Your task to perform on an android device: Go to internet settings Image 0: 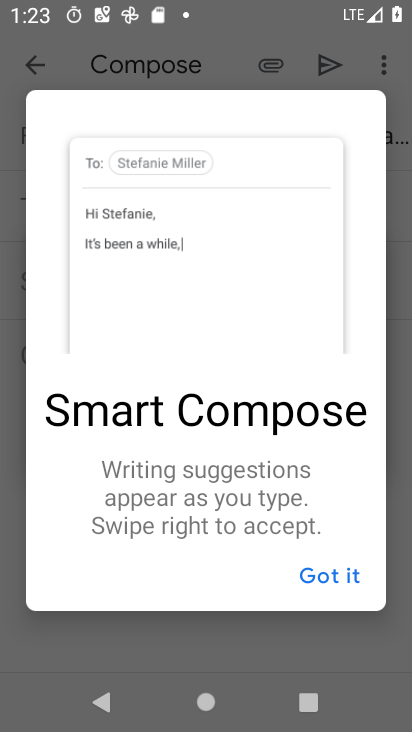
Step 0: press home button
Your task to perform on an android device: Go to internet settings Image 1: 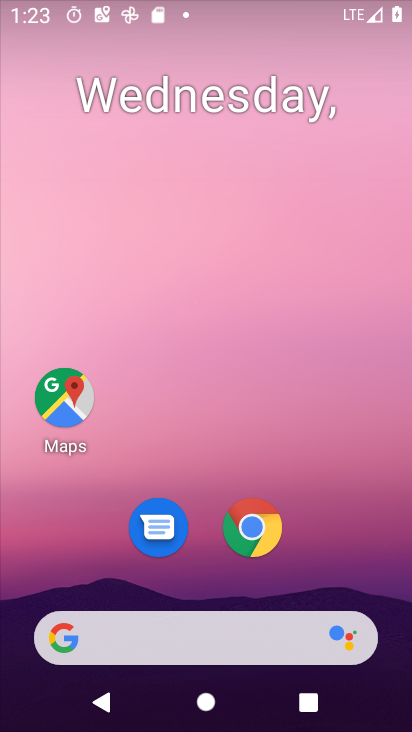
Step 1: drag from (342, 605) to (363, 68)
Your task to perform on an android device: Go to internet settings Image 2: 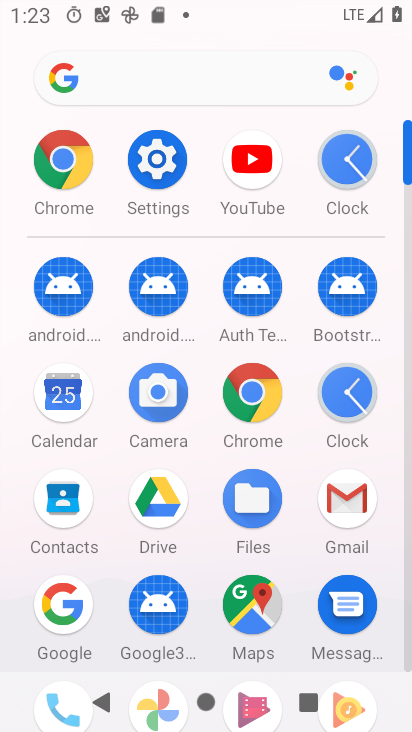
Step 2: click (154, 145)
Your task to perform on an android device: Go to internet settings Image 3: 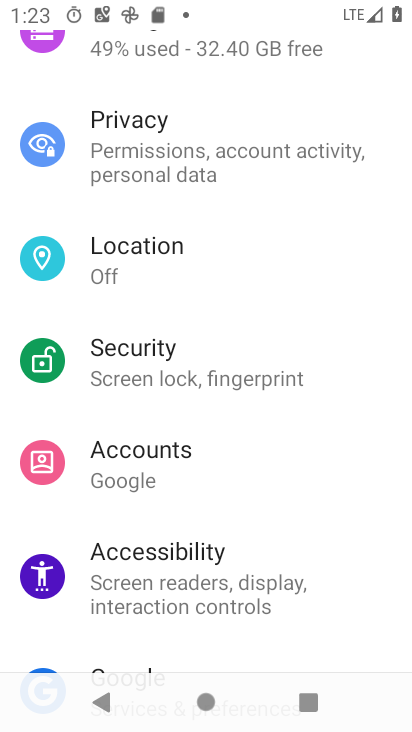
Step 3: drag from (219, 148) to (226, 660)
Your task to perform on an android device: Go to internet settings Image 4: 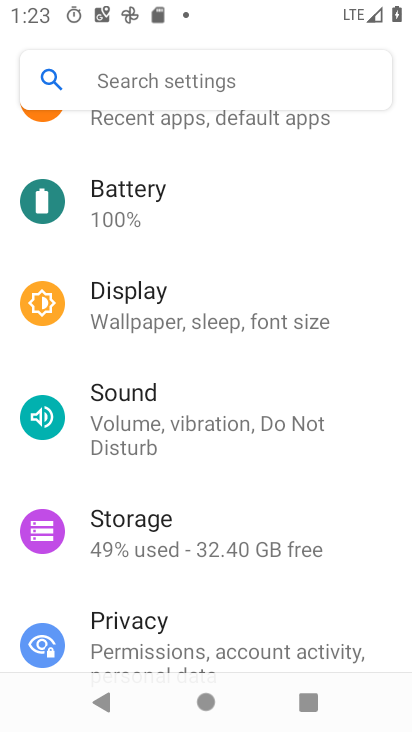
Step 4: drag from (277, 188) to (126, 702)
Your task to perform on an android device: Go to internet settings Image 5: 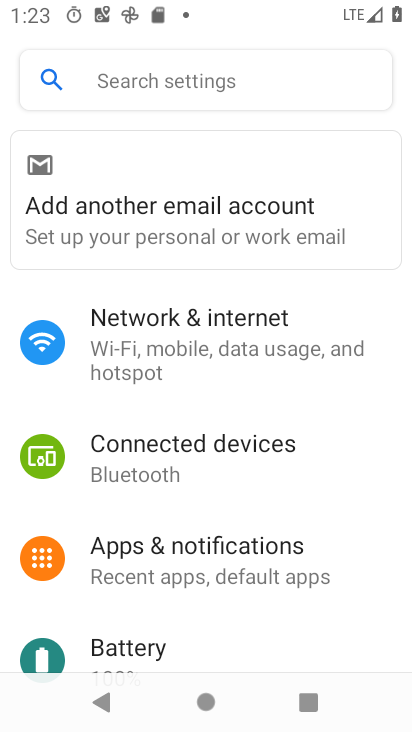
Step 5: click (218, 356)
Your task to perform on an android device: Go to internet settings Image 6: 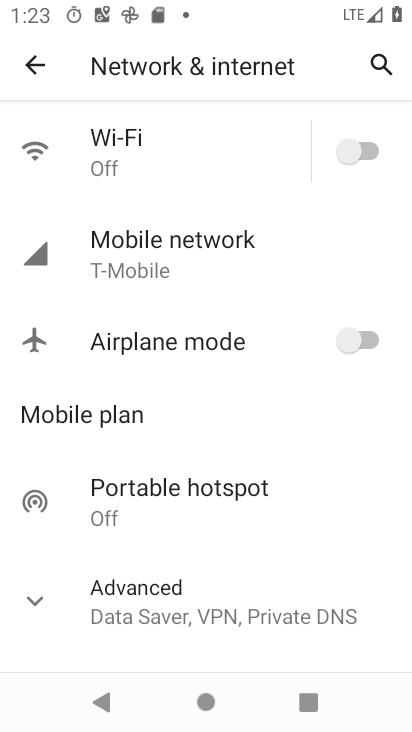
Step 6: task complete